Your task to perform on an android device: turn pop-ups off in chrome Image 0: 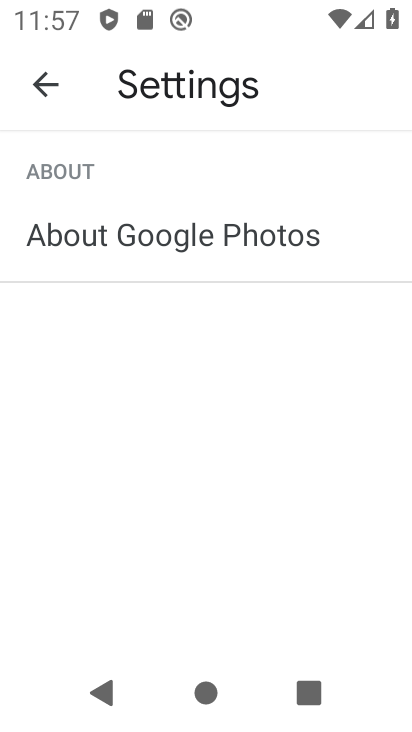
Step 0: press home button
Your task to perform on an android device: turn pop-ups off in chrome Image 1: 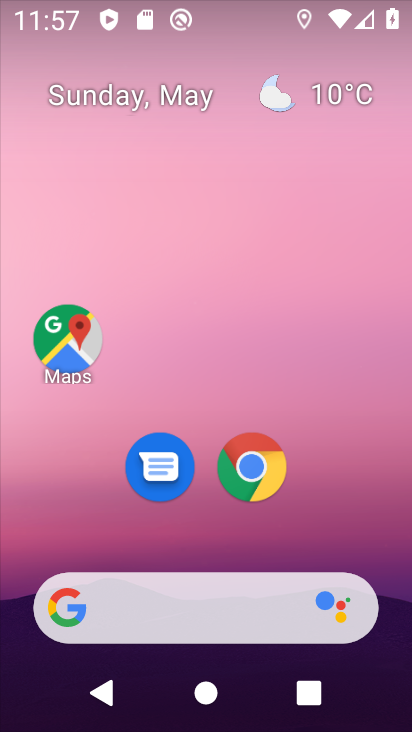
Step 1: drag from (400, 564) to (357, 120)
Your task to perform on an android device: turn pop-ups off in chrome Image 2: 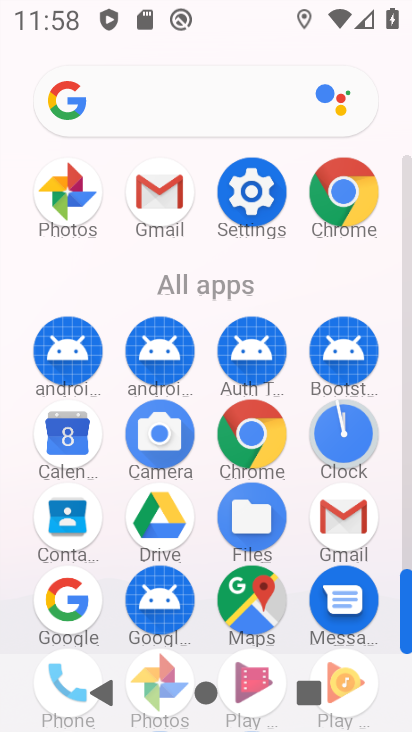
Step 2: click (266, 429)
Your task to perform on an android device: turn pop-ups off in chrome Image 3: 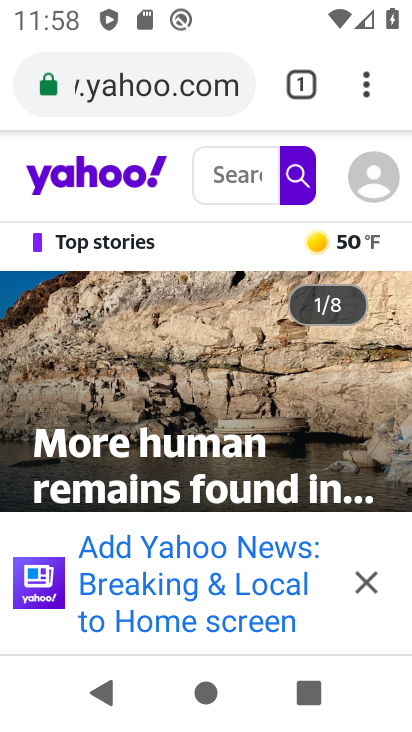
Step 3: drag from (365, 82) to (226, 506)
Your task to perform on an android device: turn pop-ups off in chrome Image 4: 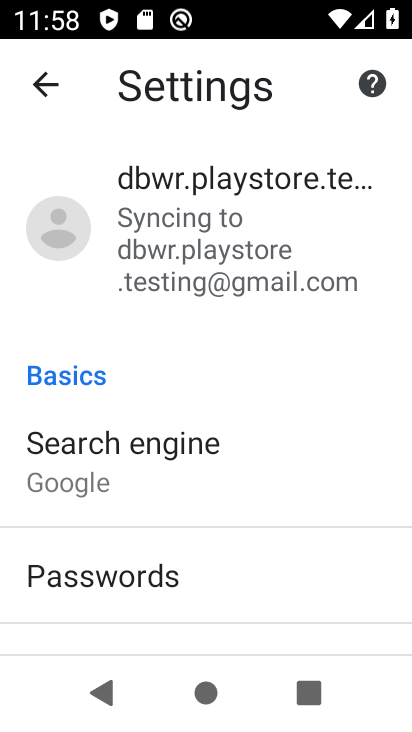
Step 4: drag from (271, 584) to (343, 282)
Your task to perform on an android device: turn pop-ups off in chrome Image 5: 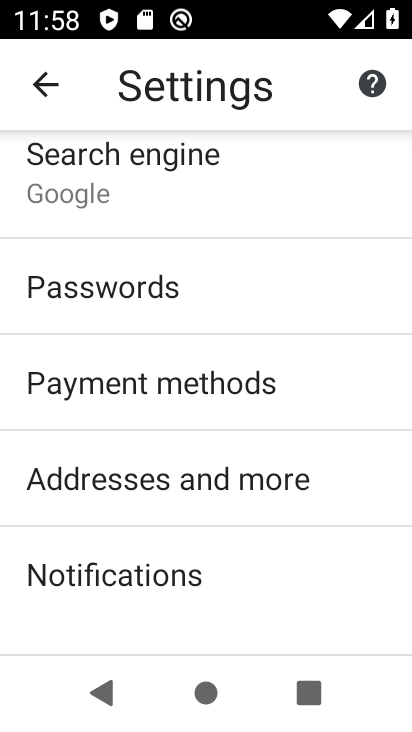
Step 5: drag from (254, 560) to (275, 230)
Your task to perform on an android device: turn pop-ups off in chrome Image 6: 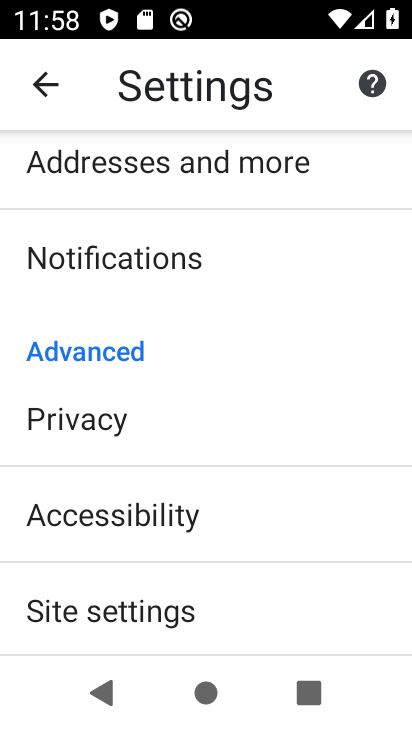
Step 6: click (193, 600)
Your task to perform on an android device: turn pop-ups off in chrome Image 7: 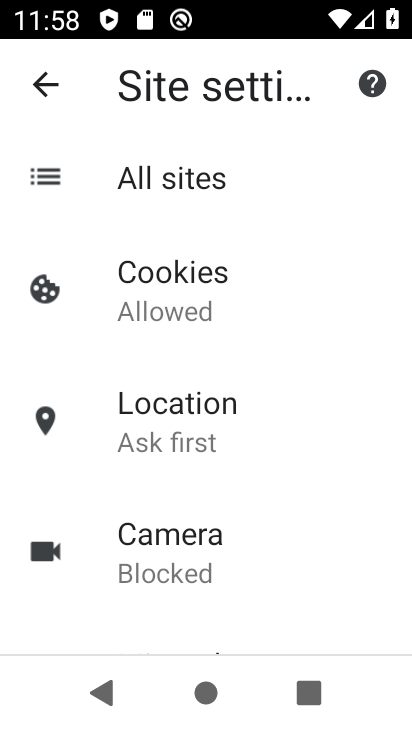
Step 7: drag from (220, 582) to (263, 311)
Your task to perform on an android device: turn pop-ups off in chrome Image 8: 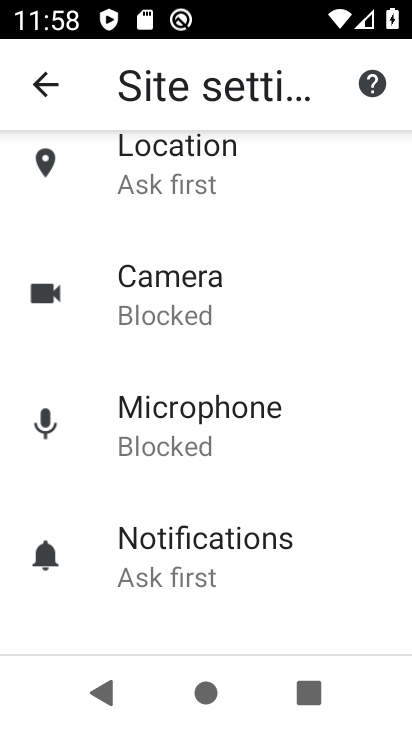
Step 8: drag from (275, 504) to (304, 282)
Your task to perform on an android device: turn pop-ups off in chrome Image 9: 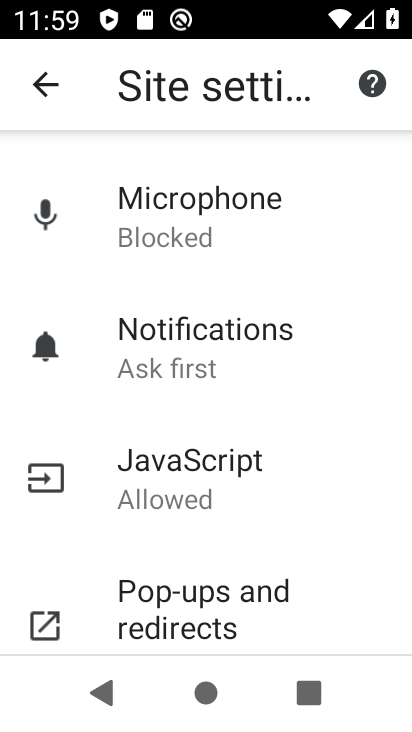
Step 9: drag from (286, 519) to (321, 299)
Your task to perform on an android device: turn pop-ups off in chrome Image 10: 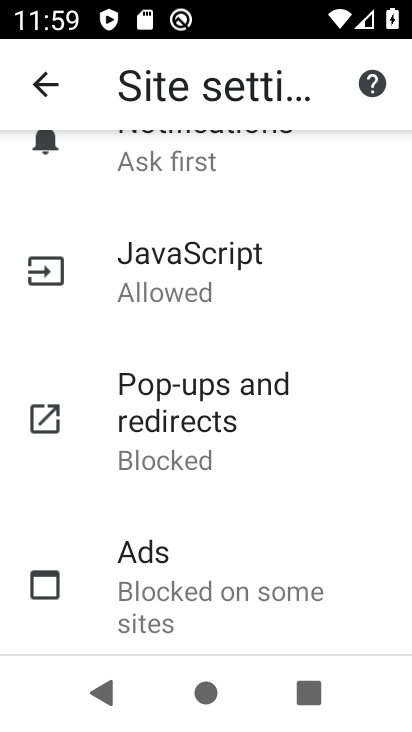
Step 10: click (266, 402)
Your task to perform on an android device: turn pop-ups off in chrome Image 11: 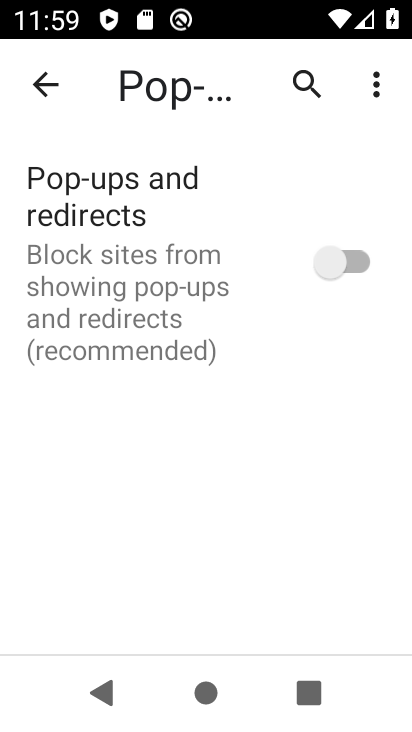
Step 11: task complete